Your task to perform on an android device: turn on showing notifications on the lock screen Image 0: 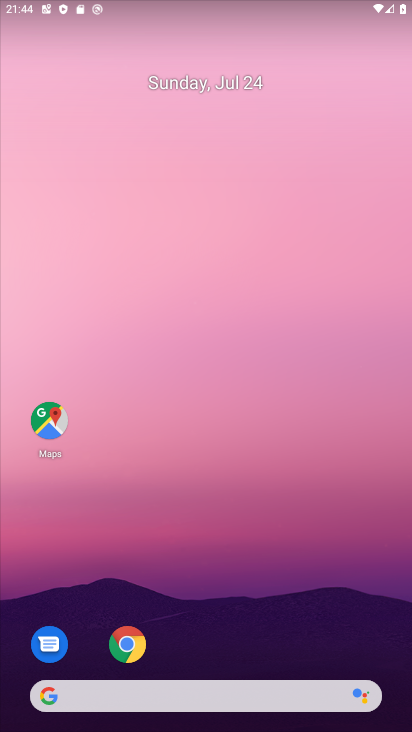
Step 0: drag from (334, 638) to (278, 82)
Your task to perform on an android device: turn on showing notifications on the lock screen Image 1: 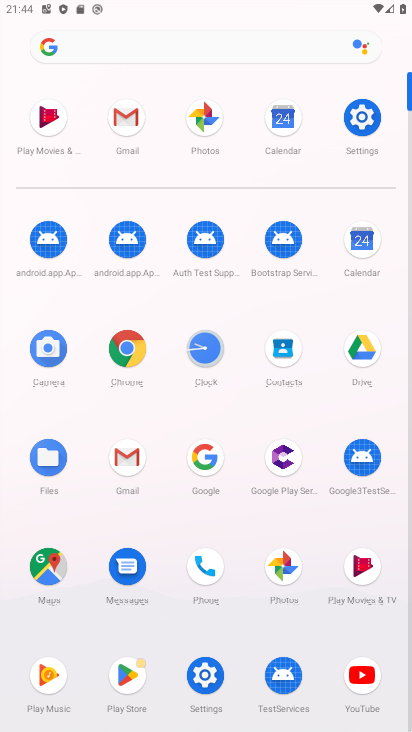
Step 1: click (205, 673)
Your task to perform on an android device: turn on showing notifications on the lock screen Image 2: 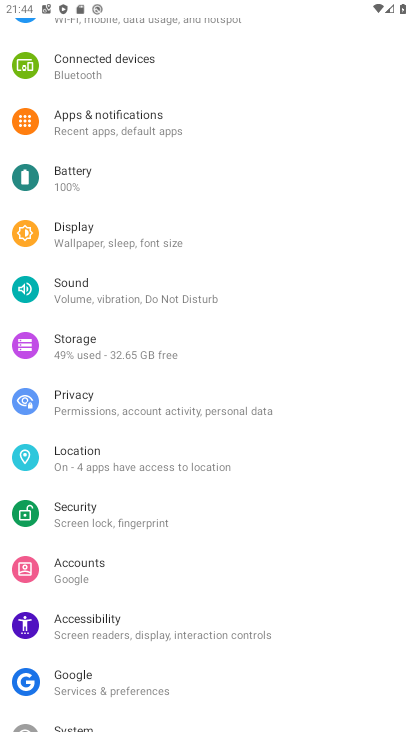
Step 2: click (88, 108)
Your task to perform on an android device: turn on showing notifications on the lock screen Image 3: 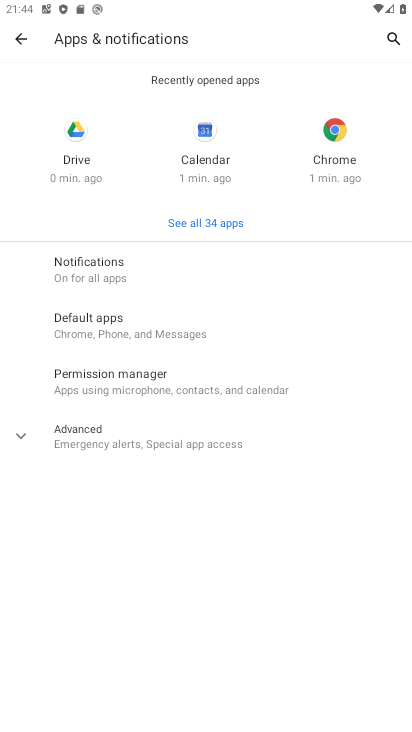
Step 3: click (100, 270)
Your task to perform on an android device: turn on showing notifications on the lock screen Image 4: 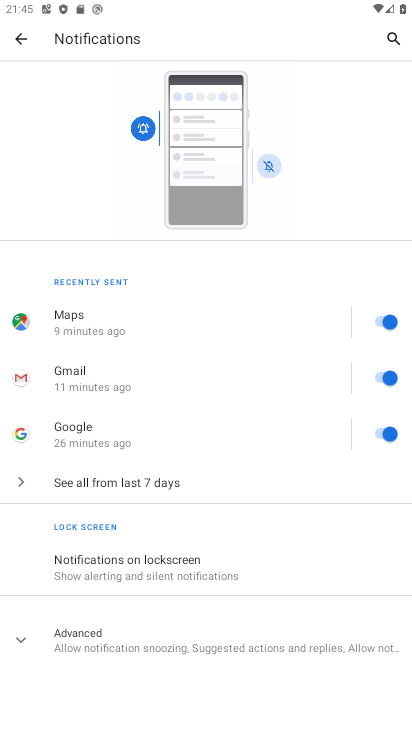
Step 4: click (136, 556)
Your task to perform on an android device: turn on showing notifications on the lock screen Image 5: 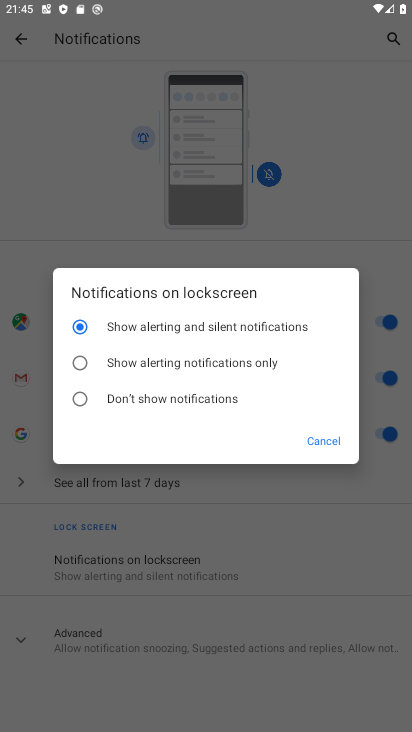
Step 5: task complete